Your task to perform on an android device: uninstall "Google Calendar" Image 0: 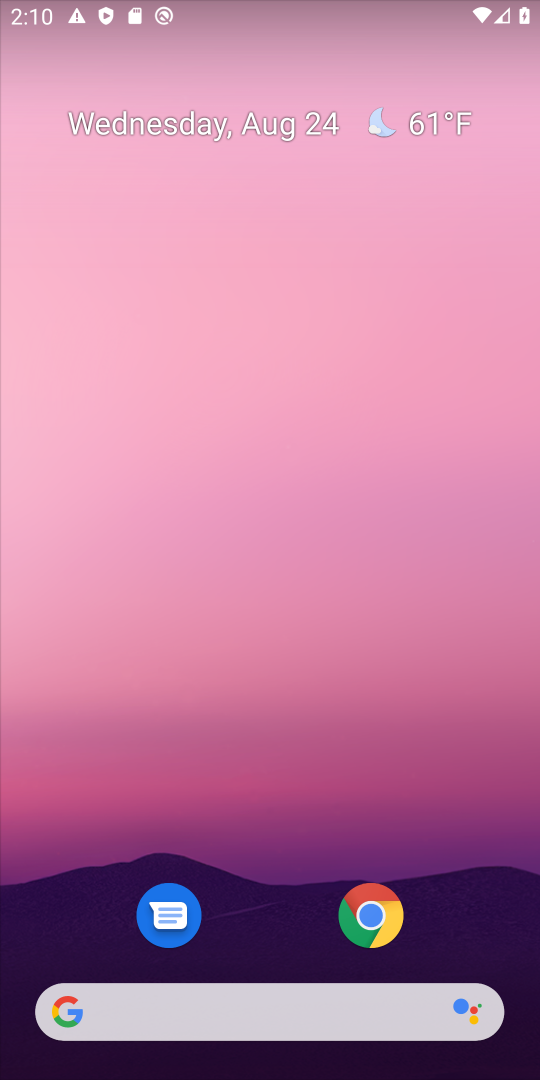
Step 0: drag from (263, 802) to (232, 220)
Your task to perform on an android device: uninstall "Google Calendar" Image 1: 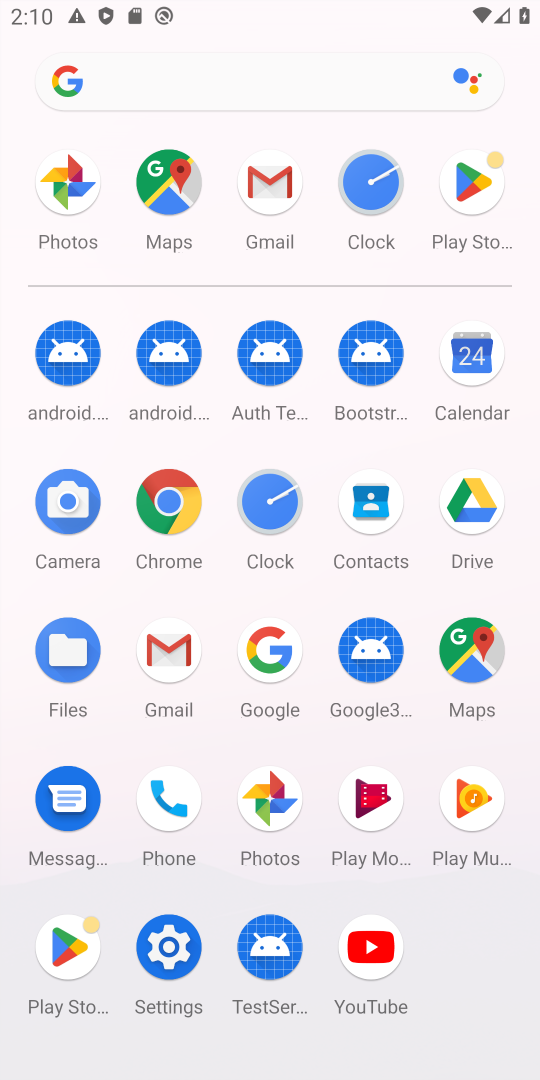
Step 1: click (458, 206)
Your task to perform on an android device: uninstall "Google Calendar" Image 2: 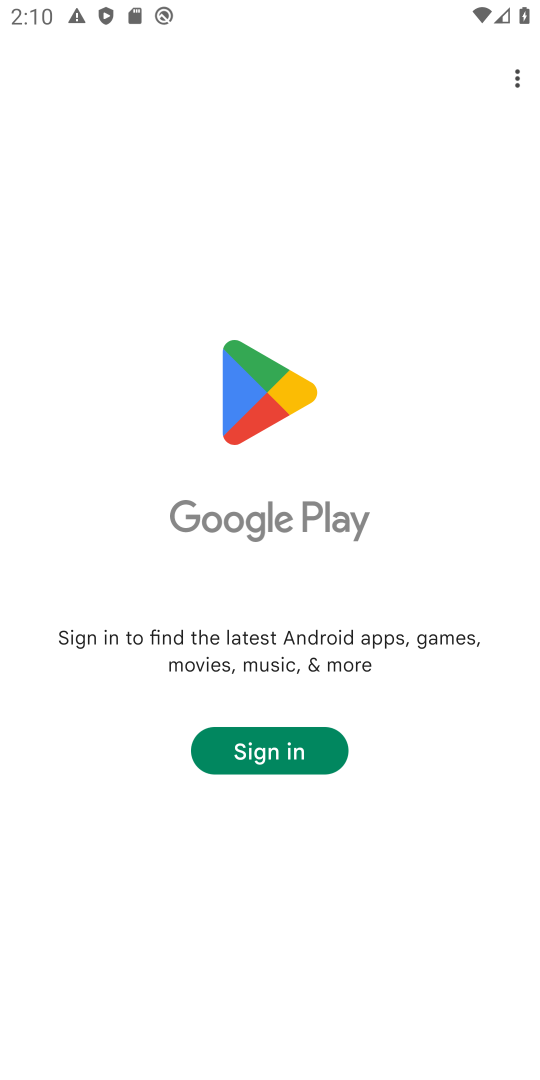
Step 2: task complete